Your task to perform on an android device: turn on notifications settings in the gmail app Image 0: 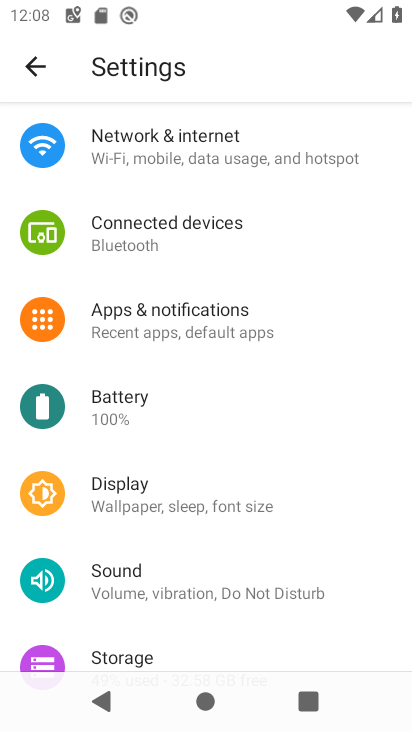
Step 0: press home button
Your task to perform on an android device: turn on notifications settings in the gmail app Image 1: 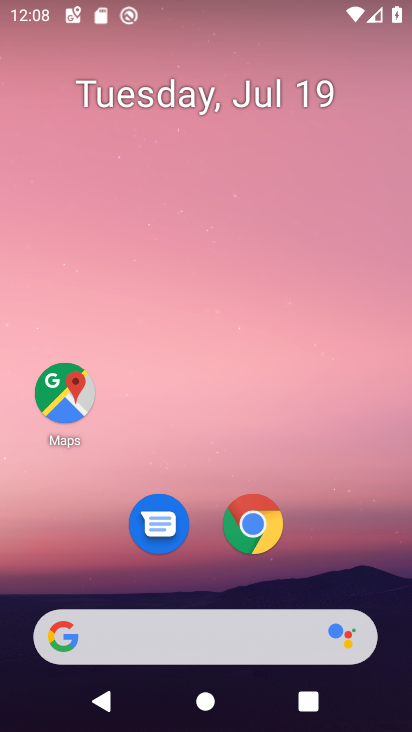
Step 1: drag from (324, 523) to (287, 86)
Your task to perform on an android device: turn on notifications settings in the gmail app Image 2: 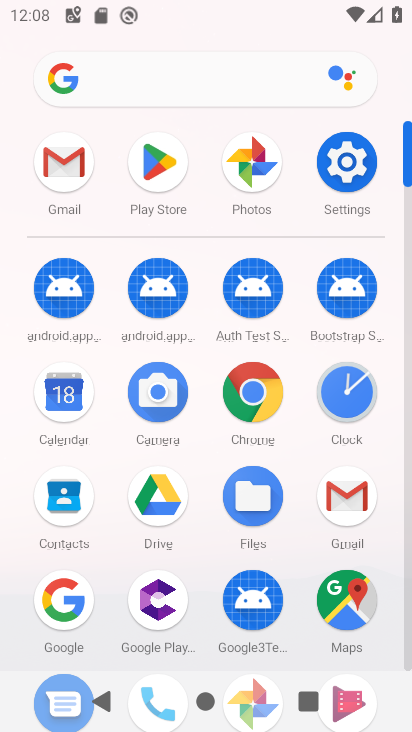
Step 2: click (66, 167)
Your task to perform on an android device: turn on notifications settings in the gmail app Image 3: 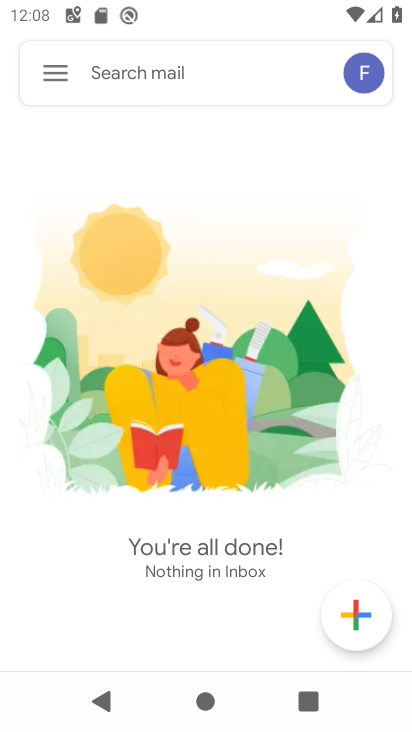
Step 3: drag from (252, 505) to (286, 203)
Your task to perform on an android device: turn on notifications settings in the gmail app Image 4: 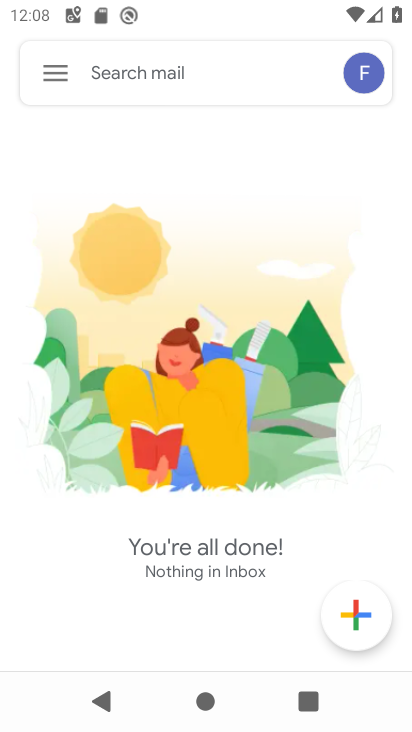
Step 4: click (58, 79)
Your task to perform on an android device: turn on notifications settings in the gmail app Image 5: 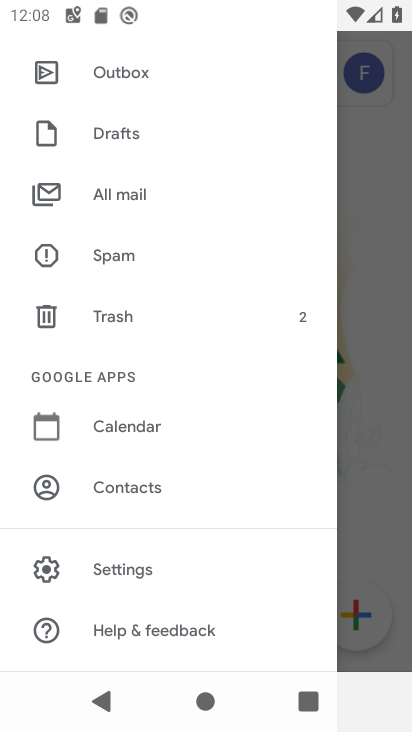
Step 5: click (137, 567)
Your task to perform on an android device: turn on notifications settings in the gmail app Image 6: 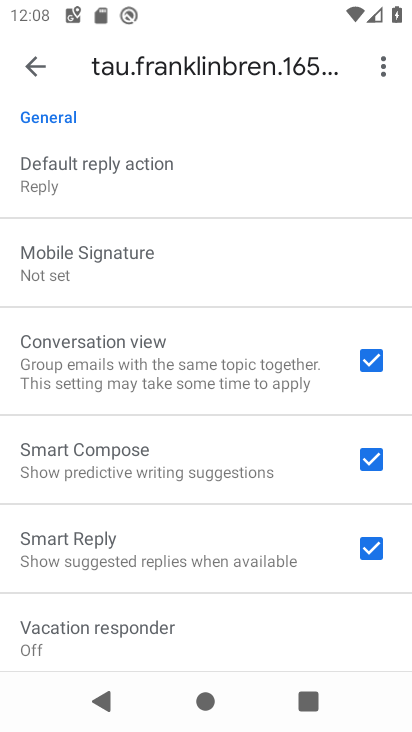
Step 6: drag from (211, 184) to (196, 607)
Your task to perform on an android device: turn on notifications settings in the gmail app Image 7: 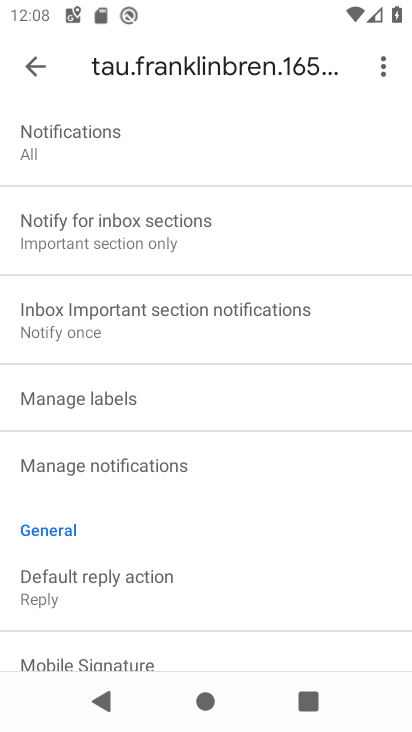
Step 7: click (181, 462)
Your task to perform on an android device: turn on notifications settings in the gmail app Image 8: 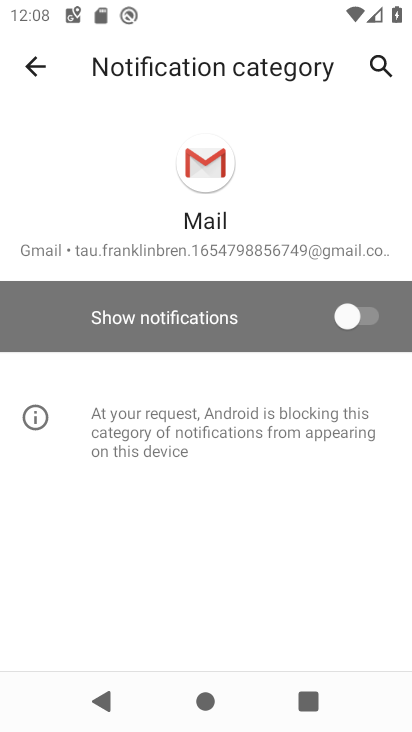
Step 8: click (352, 310)
Your task to perform on an android device: turn on notifications settings in the gmail app Image 9: 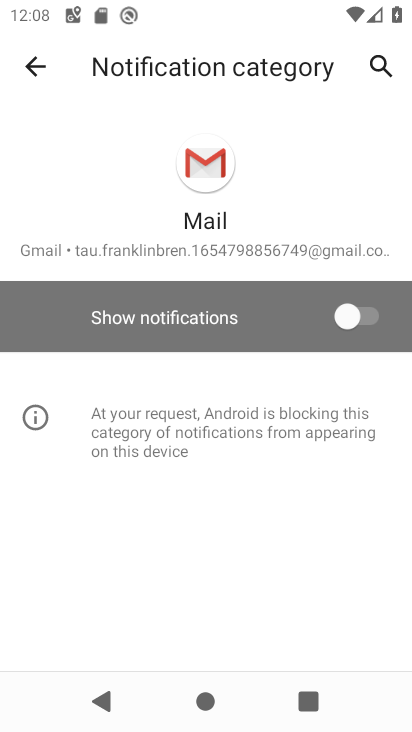
Step 9: click (41, 61)
Your task to perform on an android device: turn on notifications settings in the gmail app Image 10: 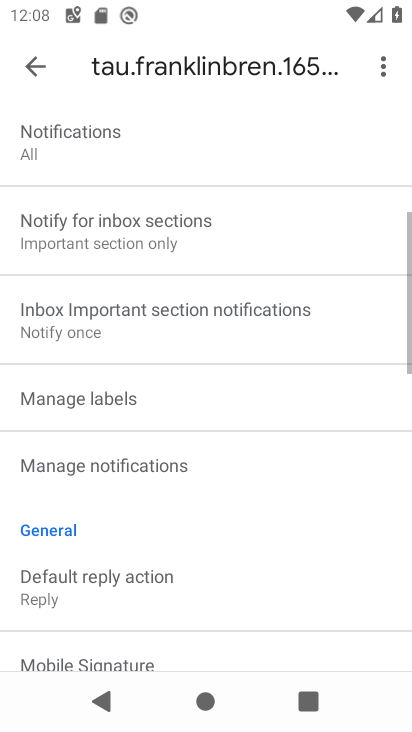
Step 10: click (41, 61)
Your task to perform on an android device: turn on notifications settings in the gmail app Image 11: 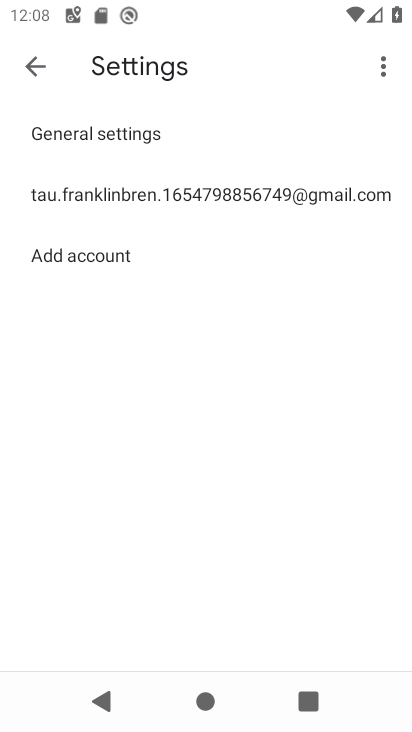
Step 11: click (85, 132)
Your task to perform on an android device: turn on notifications settings in the gmail app Image 12: 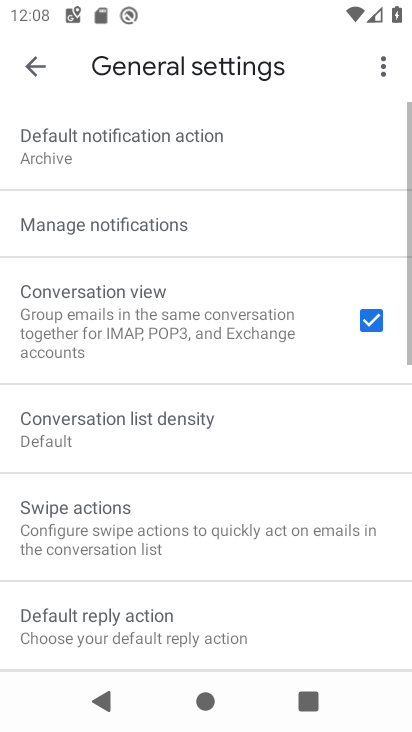
Step 12: click (140, 216)
Your task to perform on an android device: turn on notifications settings in the gmail app Image 13: 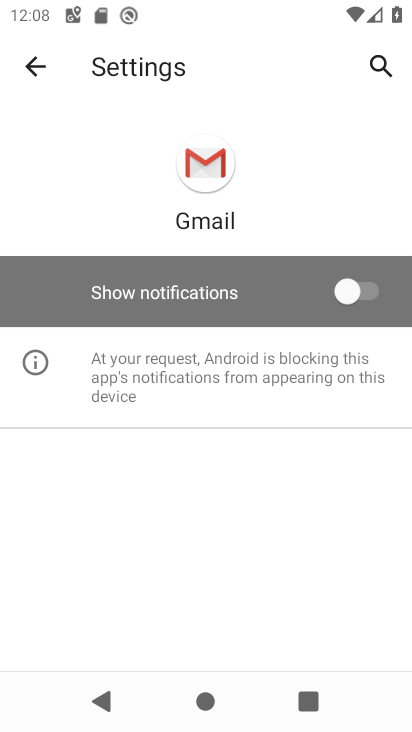
Step 13: click (359, 287)
Your task to perform on an android device: turn on notifications settings in the gmail app Image 14: 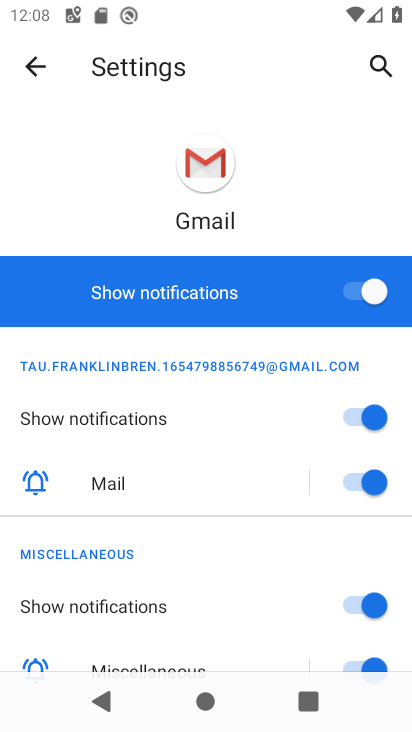
Step 14: task complete